Your task to perform on an android device: stop showing notifications on the lock screen Image 0: 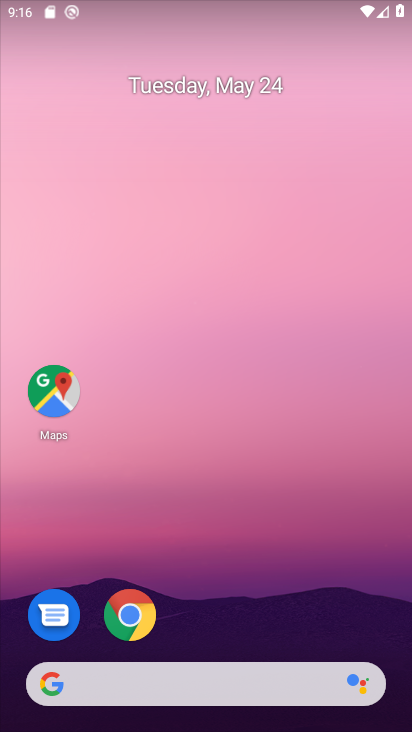
Step 0: drag from (382, 632) to (376, 213)
Your task to perform on an android device: stop showing notifications on the lock screen Image 1: 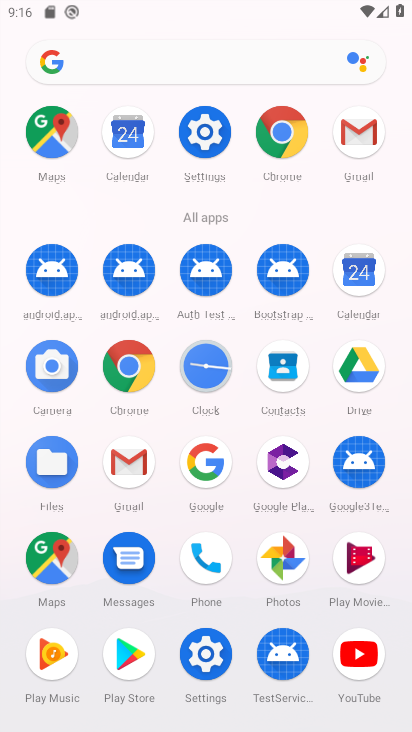
Step 1: click (212, 656)
Your task to perform on an android device: stop showing notifications on the lock screen Image 2: 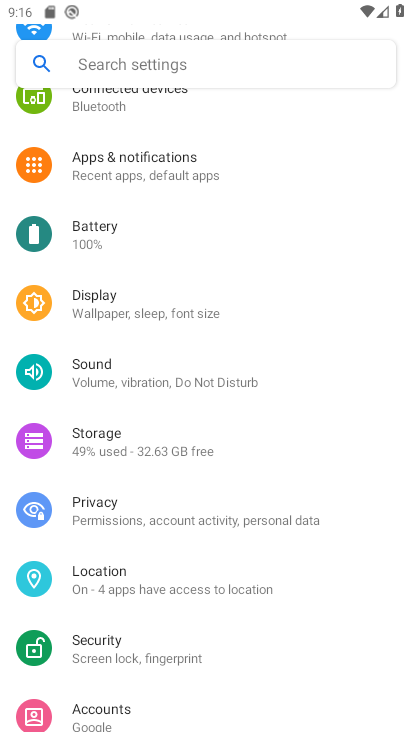
Step 2: drag from (334, 368) to (336, 496)
Your task to perform on an android device: stop showing notifications on the lock screen Image 3: 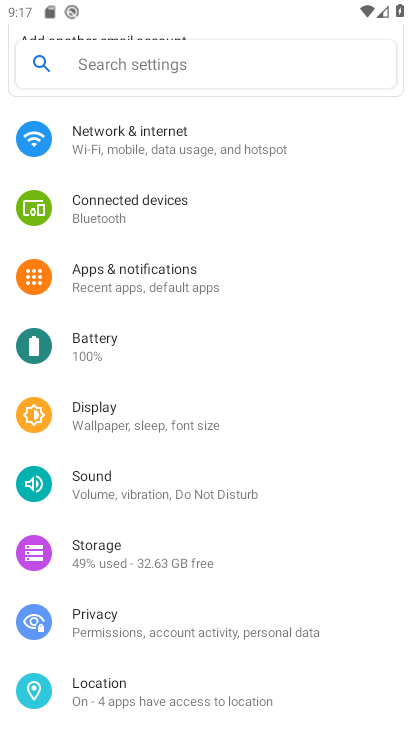
Step 3: drag from (353, 315) to (363, 428)
Your task to perform on an android device: stop showing notifications on the lock screen Image 4: 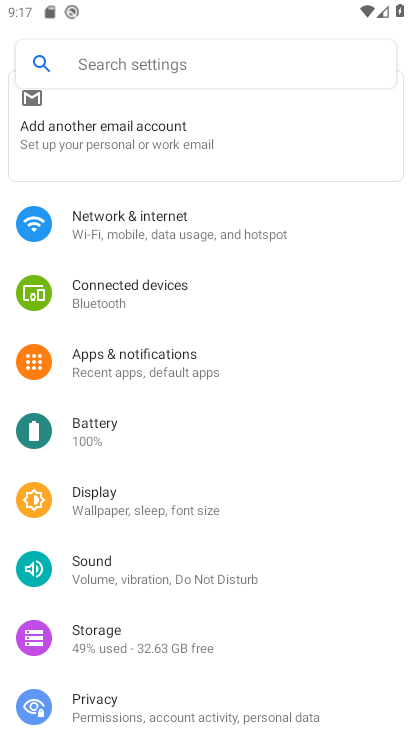
Step 4: drag from (349, 249) to (326, 406)
Your task to perform on an android device: stop showing notifications on the lock screen Image 5: 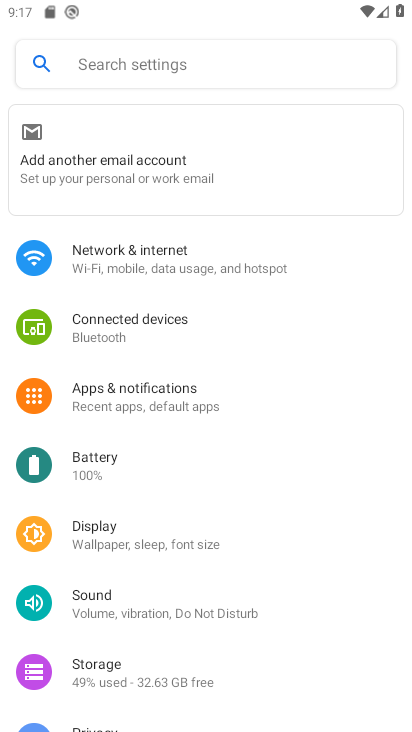
Step 5: drag from (338, 540) to (336, 436)
Your task to perform on an android device: stop showing notifications on the lock screen Image 6: 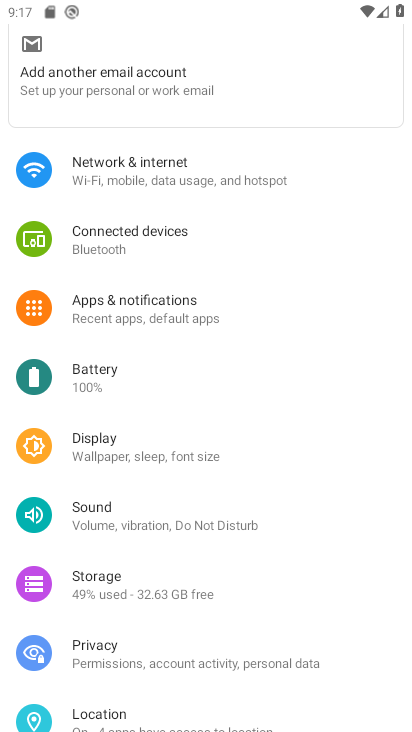
Step 6: drag from (341, 581) to (321, 431)
Your task to perform on an android device: stop showing notifications on the lock screen Image 7: 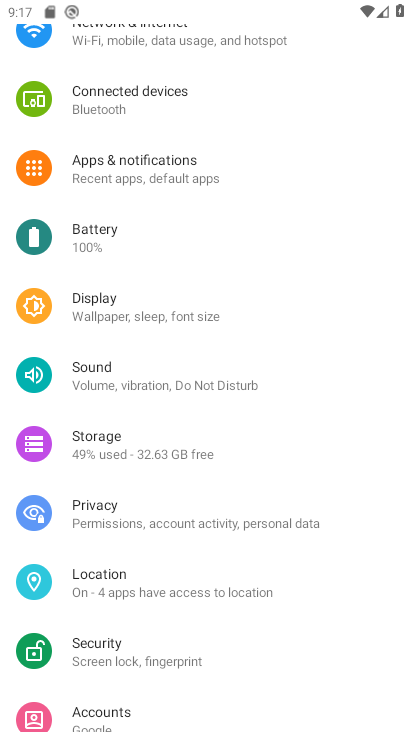
Step 7: drag from (314, 583) to (311, 434)
Your task to perform on an android device: stop showing notifications on the lock screen Image 8: 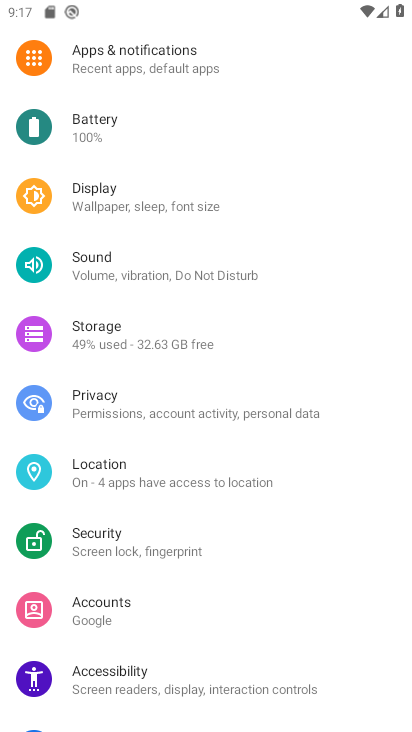
Step 8: drag from (306, 565) to (324, 347)
Your task to perform on an android device: stop showing notifications on the lock screen Image 9: 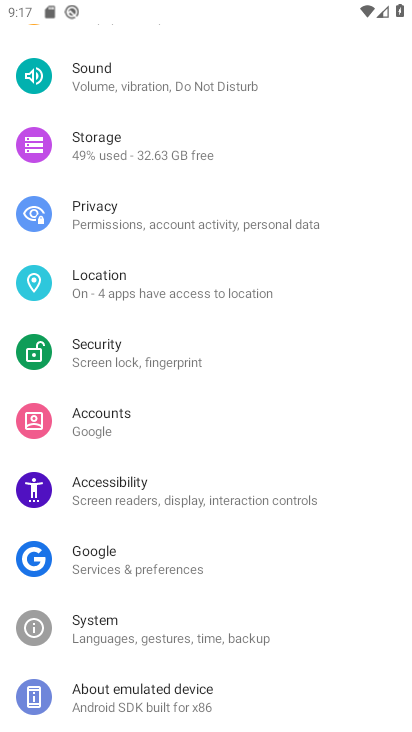
Step 9: drag from (333, 561) to (321, 450)
Your task to perform on an android device: stop showing notifications on the lock screen Image 10: 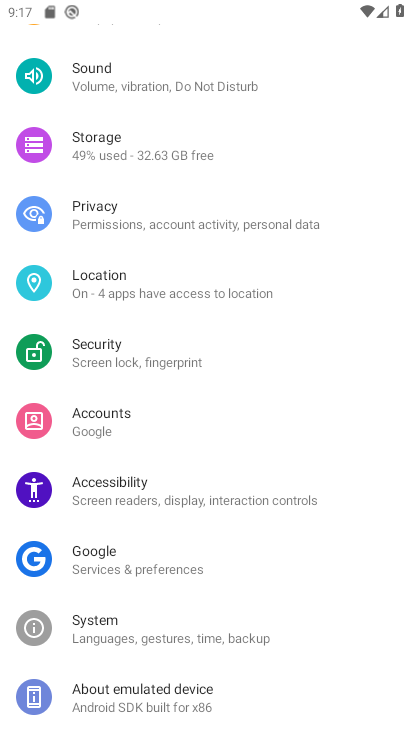
Step 10: drag from (316, 595) to (325, 463)
Your task to perform on an android device: stop showing notifications on the lock screen Image 11: 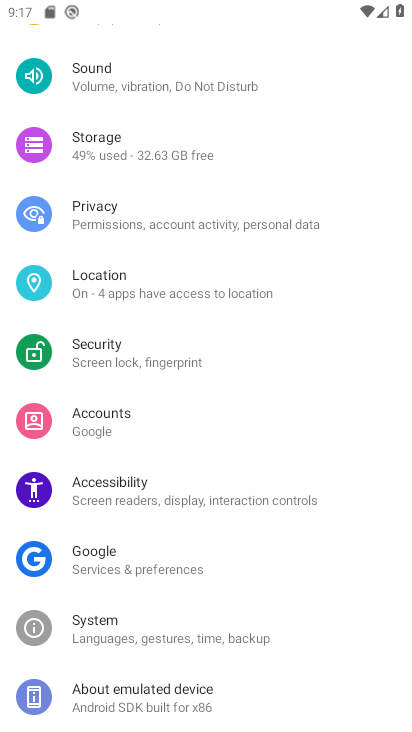
Step 11: drag from (330, 594) to (322, 449)
Your task to perform on an android device: stop showing notifications on the lock screen Image 12: 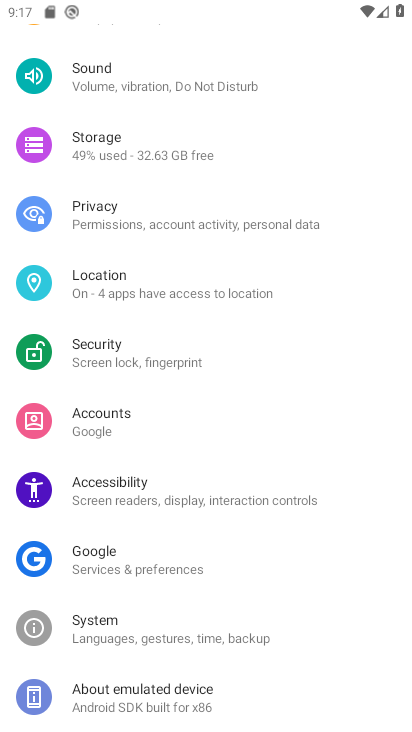
Step 12: drag from (328, 574) to (320, 431)
Your task to perform on an android device: stop showing notifications on the lock screen Image 13: 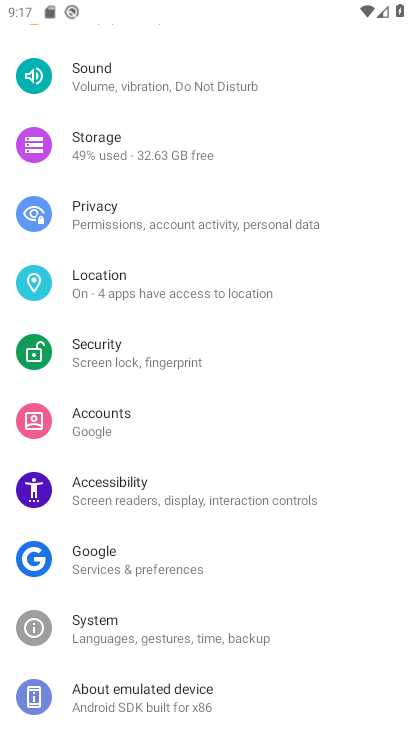
Step 13: drag from (311, 357) to (310, 476)
Your task to perform on an android device: stop showing notifications on the lock screen Image 14: 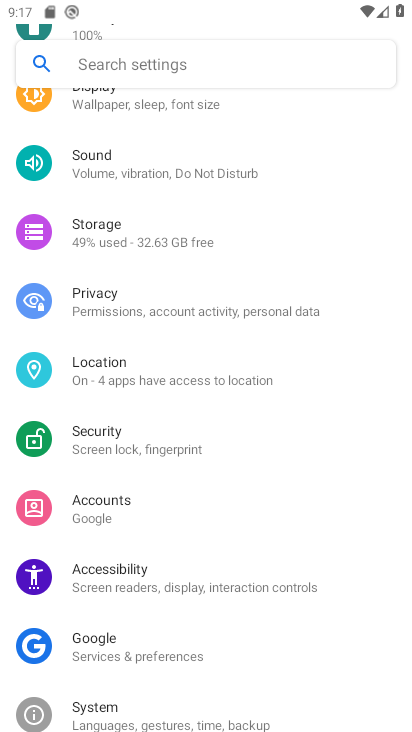
Step 14: drag from (340, 355) to (334, 473)
Your task to perform on an android device: stop showing notifications on the lock screen Image 15: 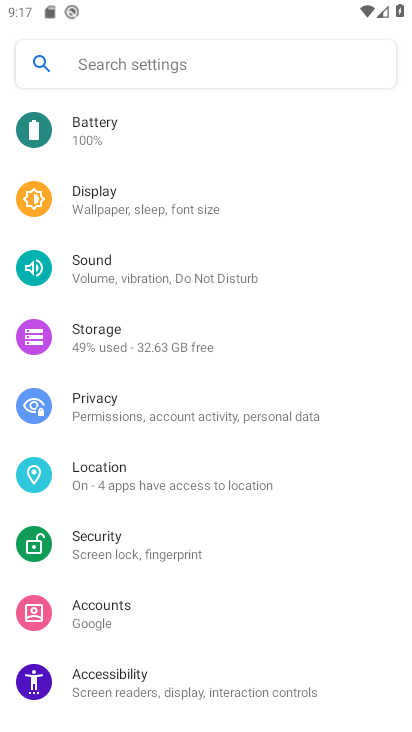
Step 15: drag from (345, 307) to (337, 458)
Your task to perform on an android device: stop showing notifications on the lock screen Image 16: 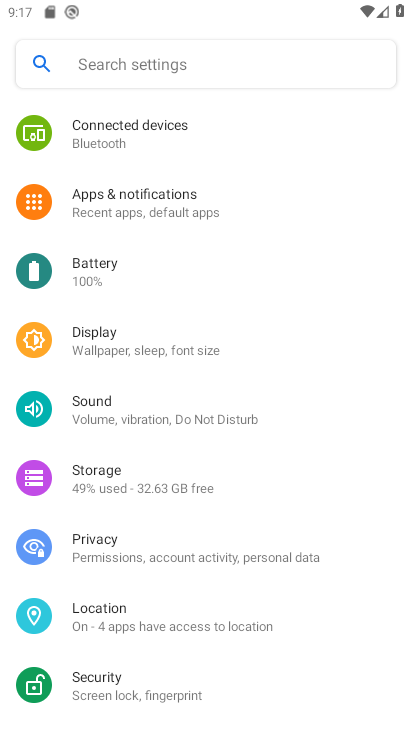
Step 16: drag from (322, 287) to (313, 460)
Your task to perform on an android device: stop showing notifications on the lock screen Image 17: 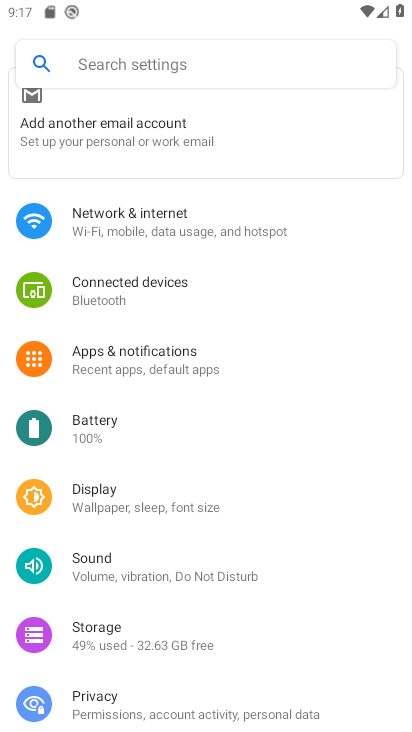
Step 17: drag from (320, 251) to (294, 441)
Your task to perform on an android device: stop showing notifications on the lock screen Image 18: 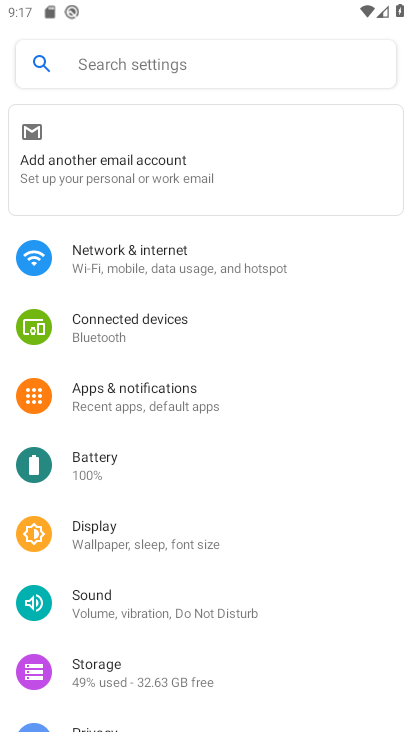
Step 18: drag from (314, 308) to (300, 438)
Your task to perform on an android device: stop showing notifications on the lock screen Image 19: 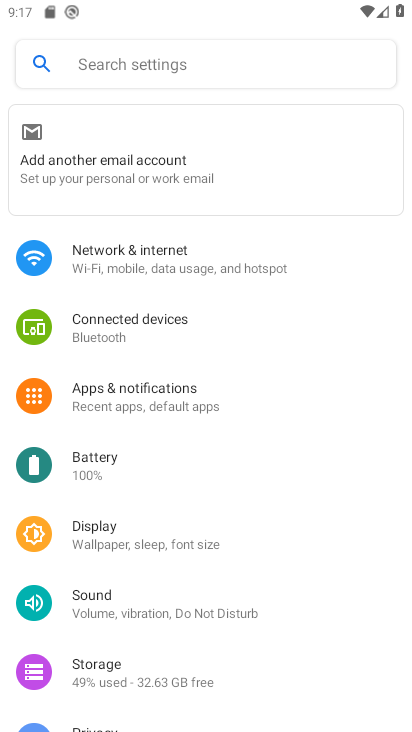
Step 19: click (188, 393)
Your task to perform on an android device: stop showing notifications on the lock screen Image 20: 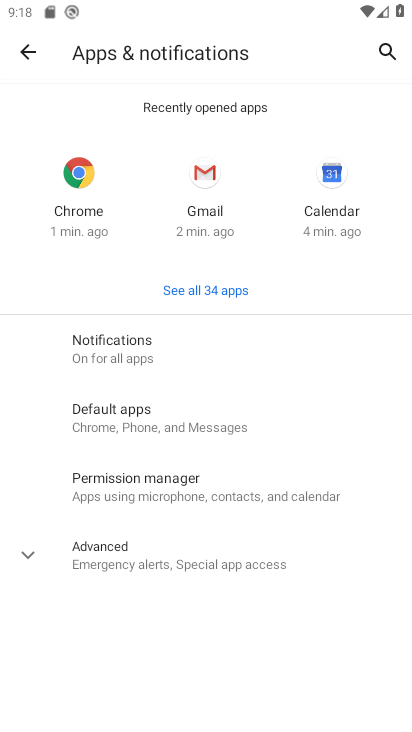
Step 20: click (125, 372)
Your task to perform on an android device: stop showing notifications on the lock screen Image 21: 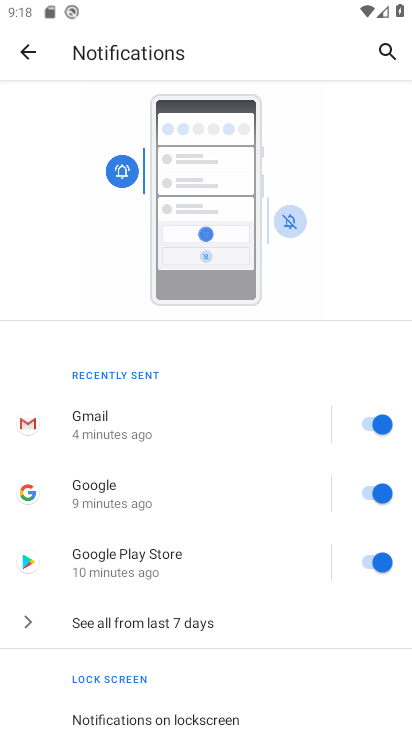
Step 21: drag from (260, 562) to (245, 409)
Your task to perform on an android device: stop showing notifications on the lock screen Image 22: 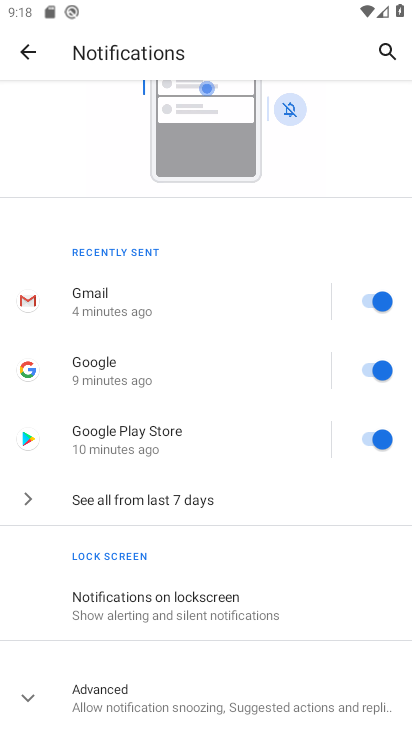
Step 22: drag from (287, 636) to (270, 511)
Your task to perform on an android device: stop showing notifications on the lock screen Image 23: 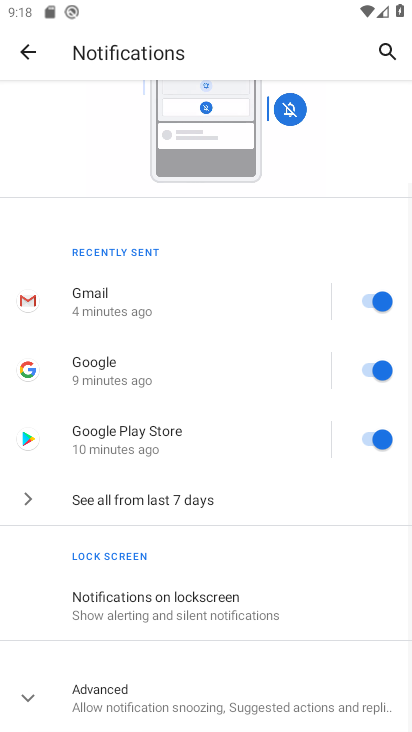
Step 23: click (251, 614)
Your task to perform on an android device: stop showing notifications on the lock screen Image 24: 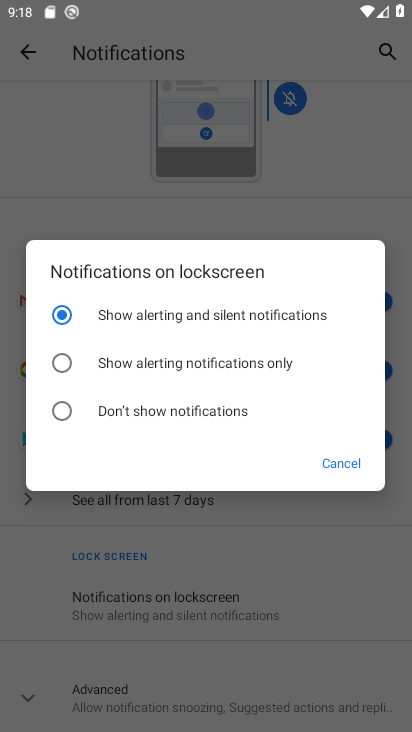
Step 24: click (84, 410)
Your task to perform on an android device: stop showing notifications on the lock screen Image 25: 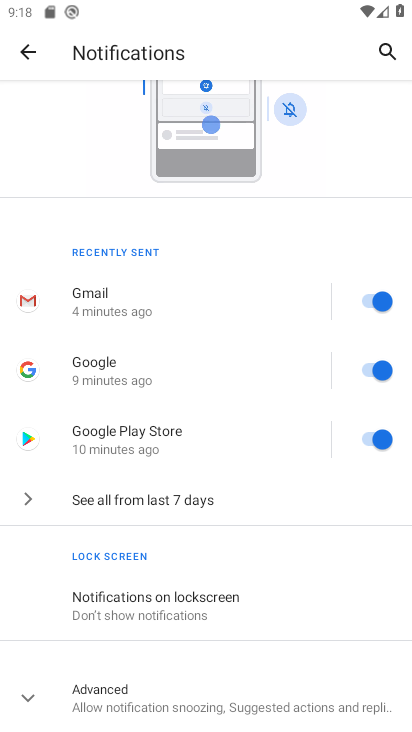
Step 25: task complete